Your task to perform on an android device: change the clock display to show seconds Image 0: 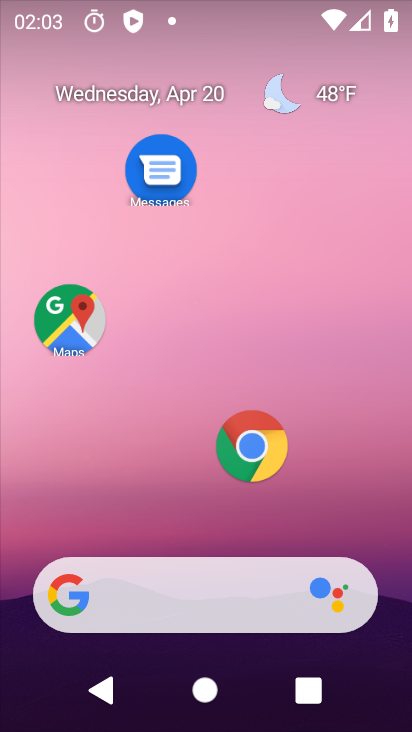
Step 0: drag from (208, 519) to (259, 86)
Your task to perform on an android device: change the clock display to show seconds Image 1: 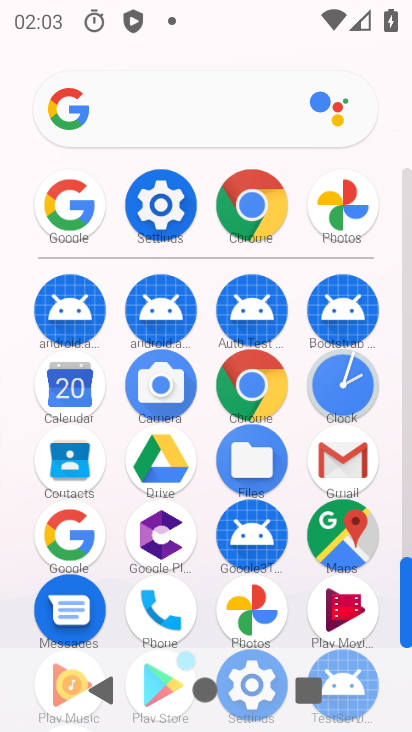
Step 1: click (343, 381)
Your task to perform on an android device: change the clock display to show seconds Image 2: 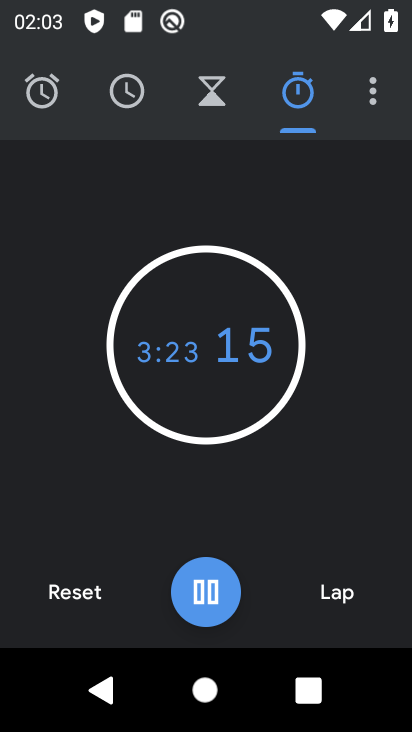
Step 2: click (65, 593)
Your task to perform on an android device: change the clock display to show seconds Image 3: 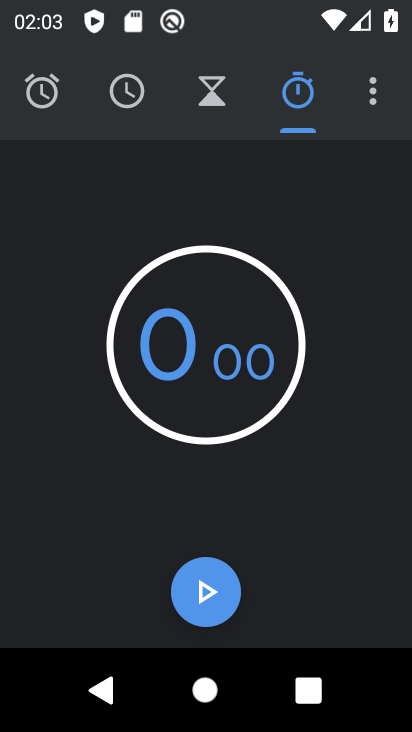
Step 3: click (371, 92)
Your task to perform on an android device: change the clock display to show seconds Image 4: 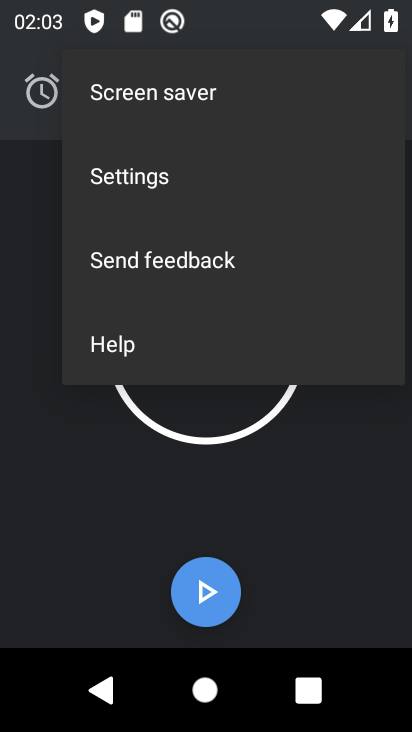
Step 4: click (184, 175)
Your task to perform on an android device: change the clock display to show seconds Image 5: 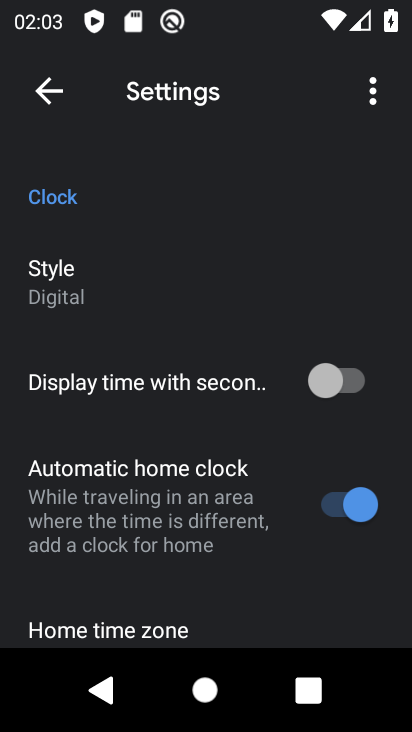
Step 5: click (330, 385)
Your task to perform on an android device: change the clock display to show seconds Image 6: 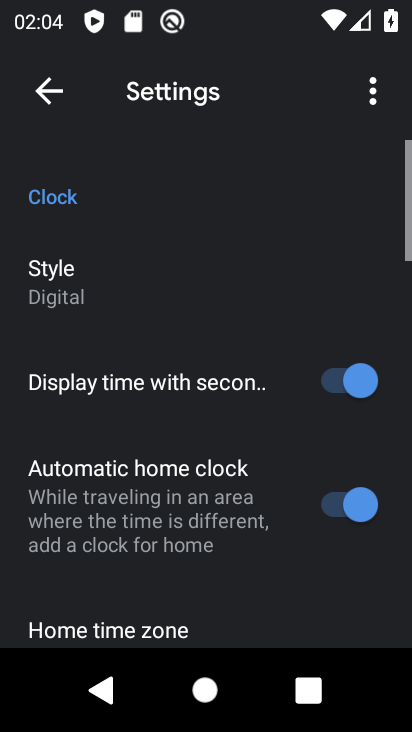
Step 6: task complete